Your task to perform on an android device: turn off notifications in google photos Image 0: 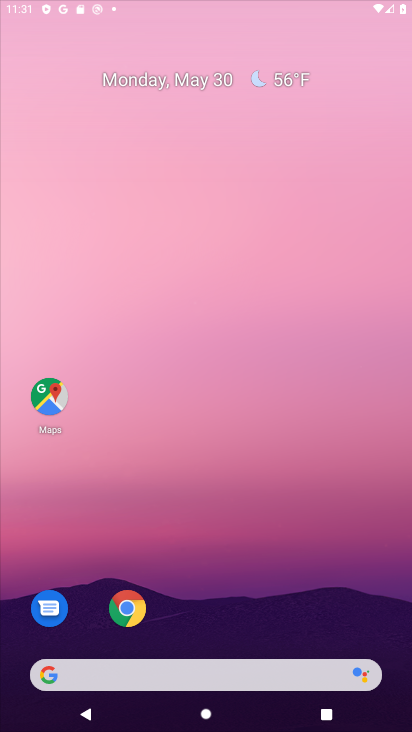
Step 0: drag from (221, 590) to (232, 86)
Your task to perform on an android device: turn off notifications in google photos Image 1: 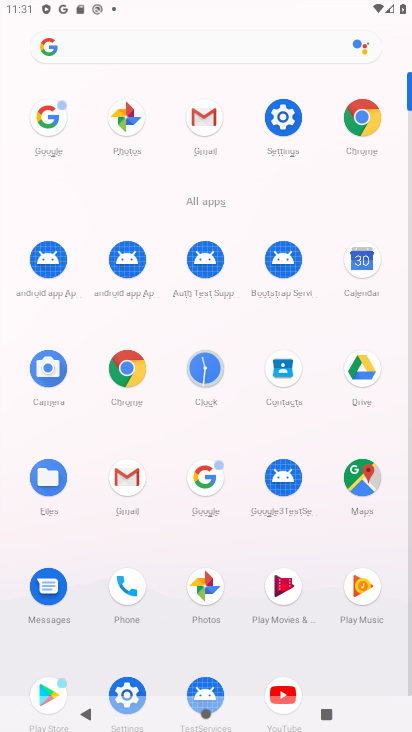
Step 1: click (287, 114)
Your task to perform on an android device: turn off notifications in google photos Image 2: 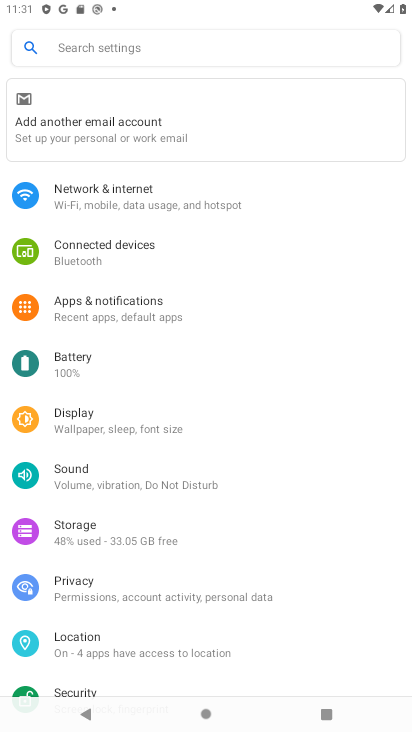
Step 2: press back button
Your task to perform on an android device: turn off notifications in google photos Image 3: 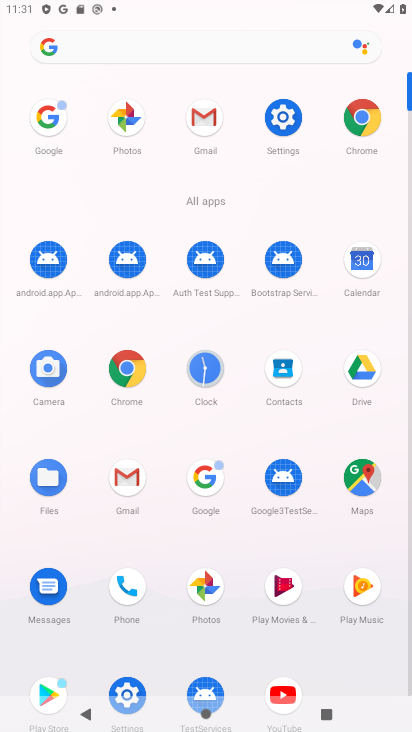
Step 3: click (125, 117)
Your task to perform on an android device: turn off notifications in google photos Image 4: 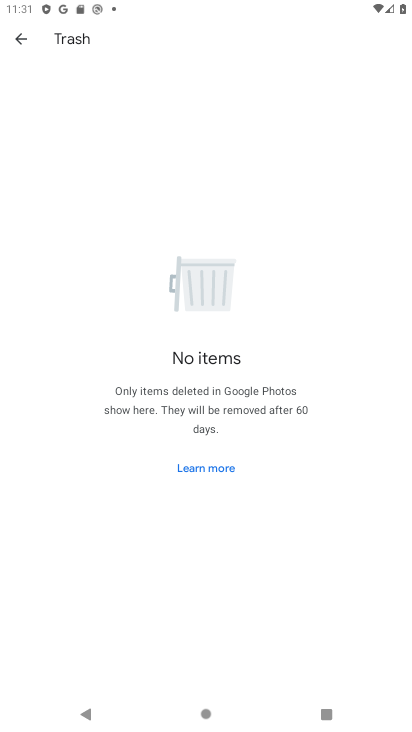
Step 4: press back button
Your task to perform on an android device: turn off notifications in google photos Image 5: 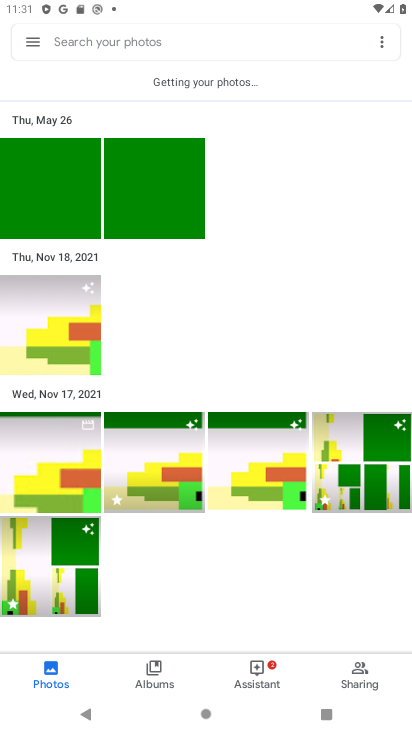
Step 5: click (29, 47)
Your task to perform on an android device: turn off notifications in google photos Image 6: 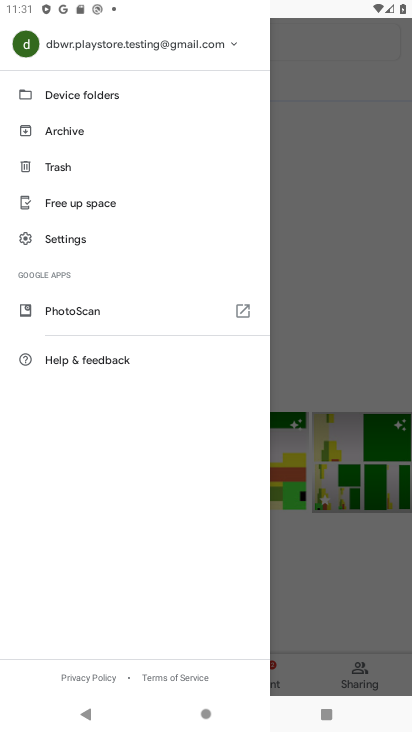
Step 6: click (67, 237)
Your task to perform on an android device: turn off notifications in google photos Image 7: 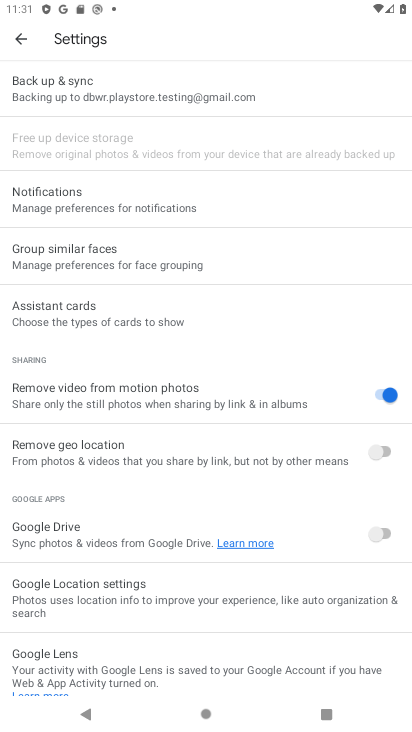
Step 7: click (105, 204)
Your task to perform on an android device: turn off notifications in google photos Image 8: 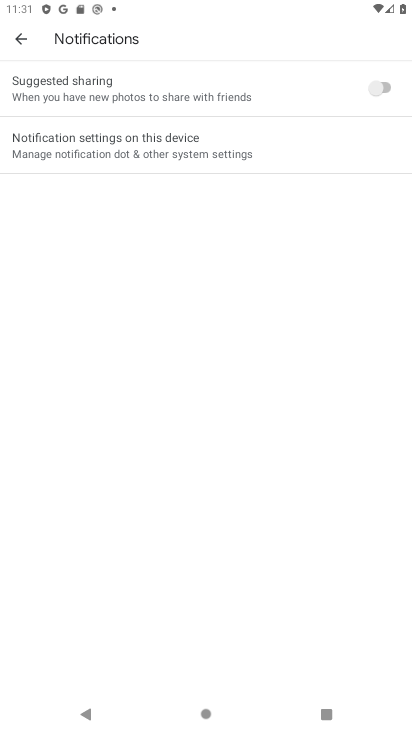
Step 8: click (87, 146)
Your task to perform on an android device: turn off notifications in google photos Image 9: 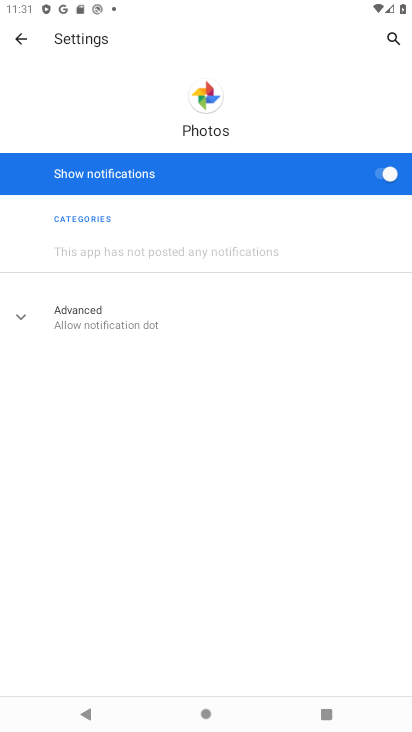
Step 9: click (389, 169)
Your task to perform on an android device: turn off notifications in google photos Image 10: 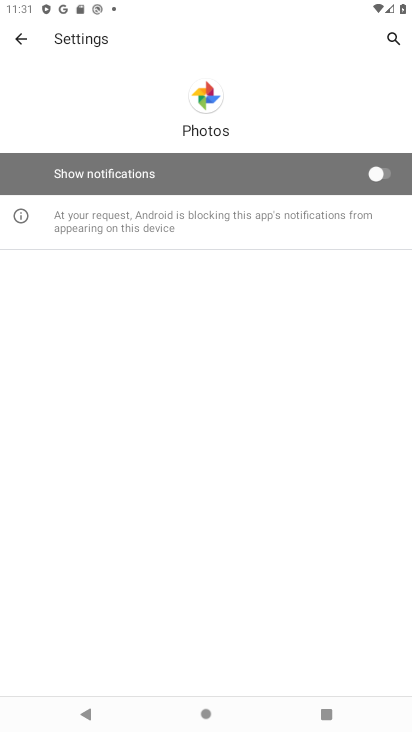
Step 10: task complete